Your task to perform on an android device: toggle wifi Image 0: 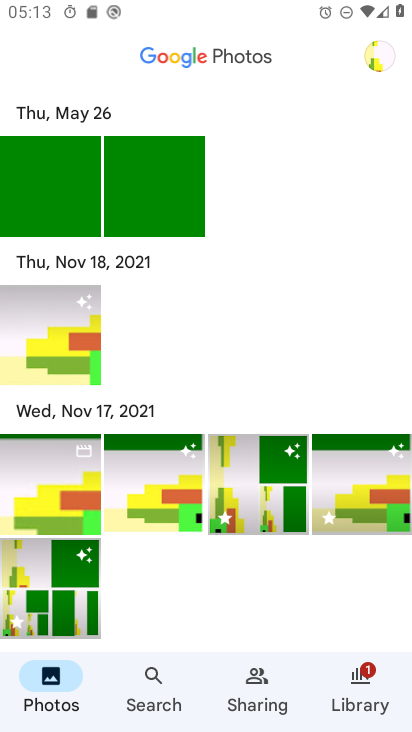
Step 0: press home button
Your task to perform on an android device: toggle wifi Image 1: 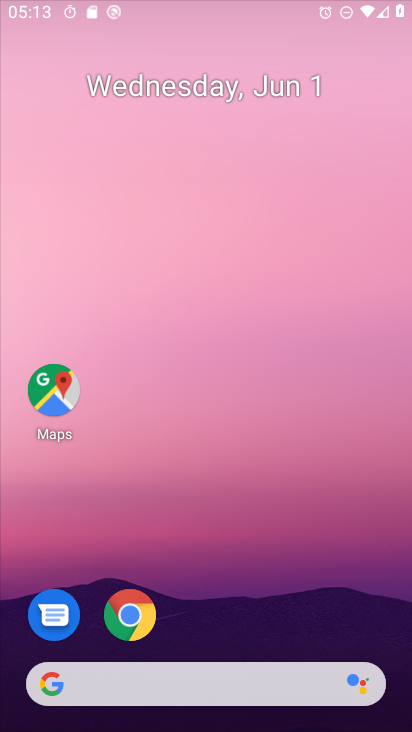
Step 1: drag from (313, 659) to (323, 124)
Your task to perform on an android device: toggle wifi Image 2: 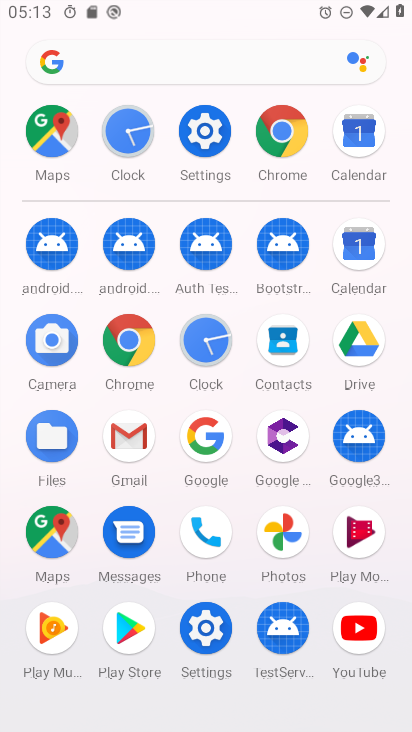
Step 2: click (208, 140)
Your task to perform on an android device: toggle wifi Image 3: 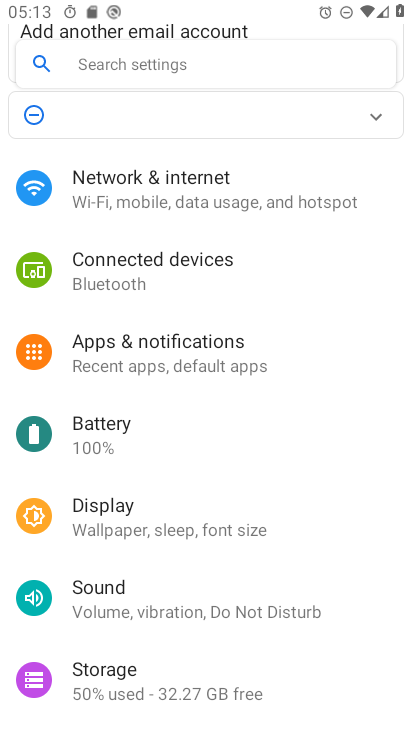
Step 3: click (196, 189)
Your task to perform on an android device: toggle wifi Image 4: 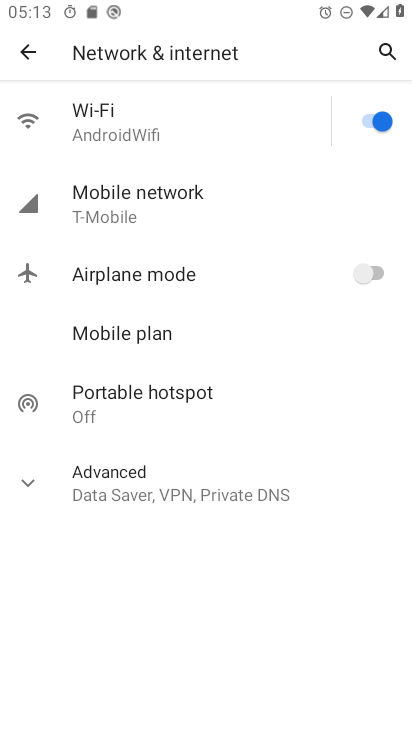
Step 4: click (122, 128)
Your task to perform on an android device: toggle wifi Image 5: 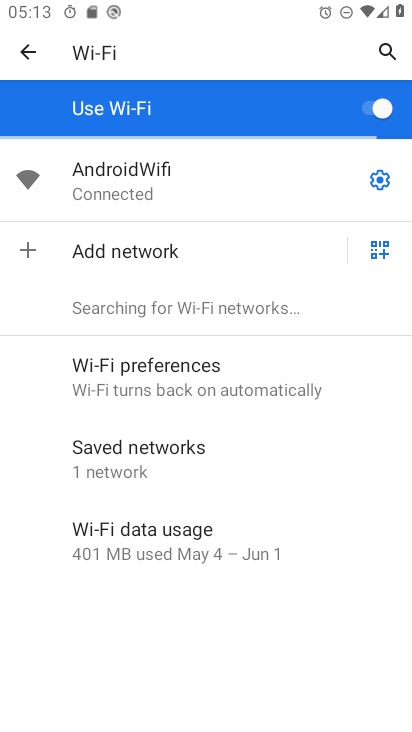
Step 5: click (370, 101)
Your task to perform on an android device: toggle wifi Image 6: 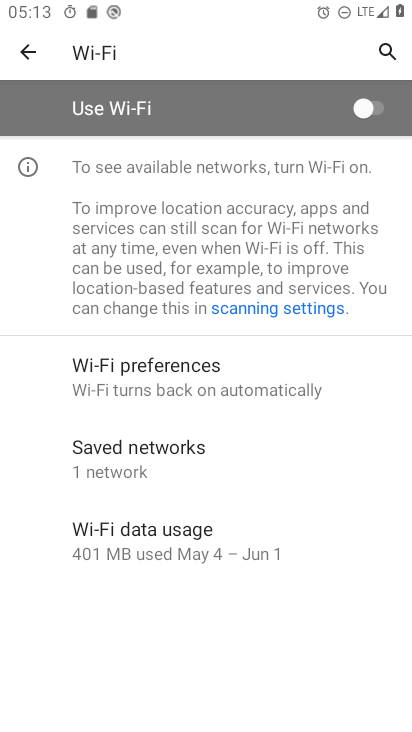
Step 6: task complete